Your task to perform on an android device: Go to internet settings Image 0: 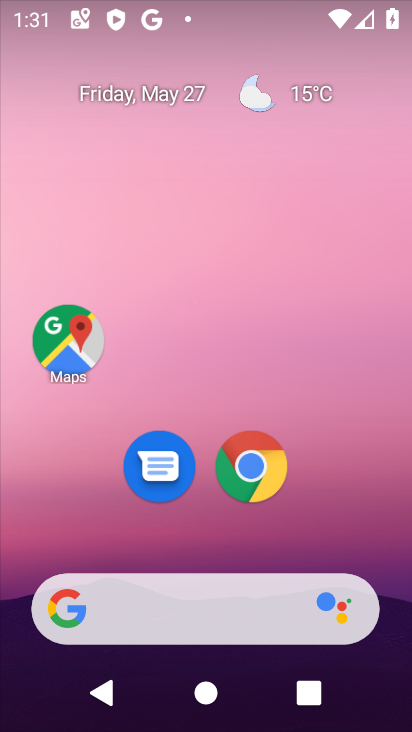
Step 0: drag from (104, 466) to (251, 41)
Your task to perform on an android device: Go to internet settings Image 1: 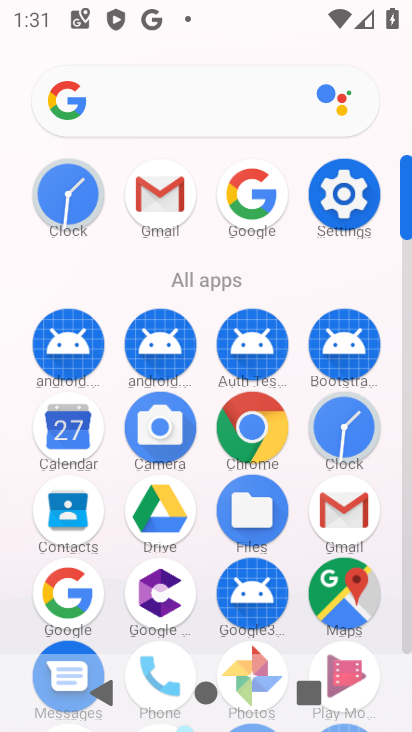
Step 1: drag from (154, 549) to (252, 255)
Your task to perform on an android device: Go to internet settings Image 2: 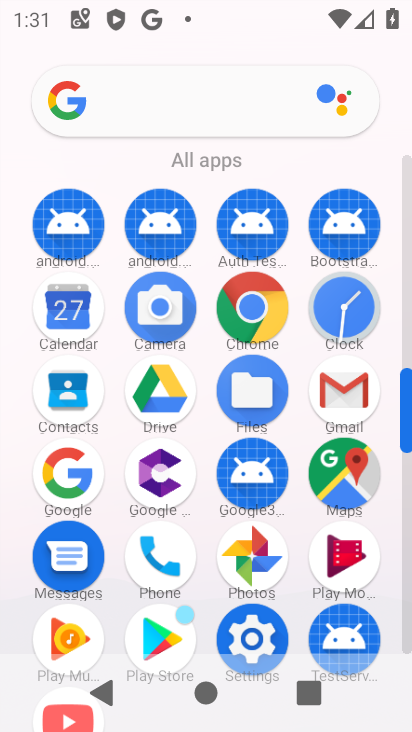
Step 2: click (255, 644)
Your task to perform on an android device: Go to internet settings Image 3: 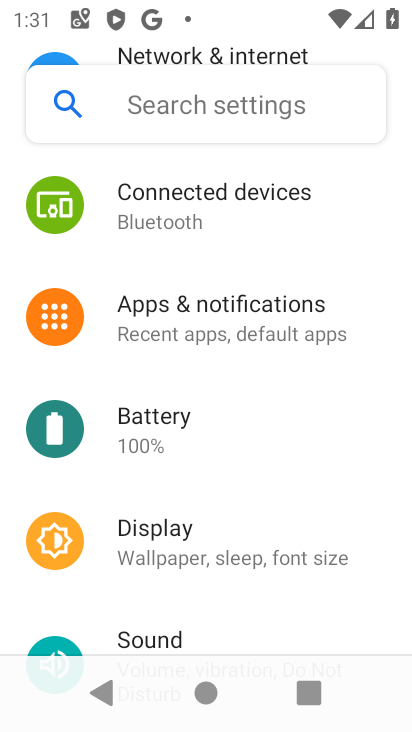
Step 3: drag from (199, 224) to (202, 638)
Your task to perform on an android device: Go to internet settings Image 4: 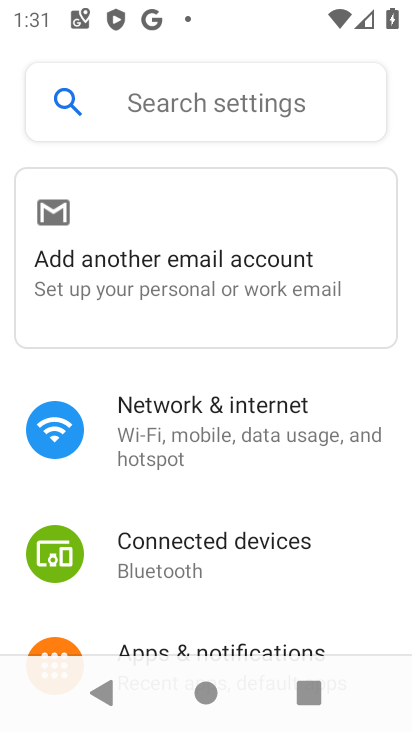
Step 4: click (245, 425)
Your task to perform on an android device: Go to internet settings Image 5: 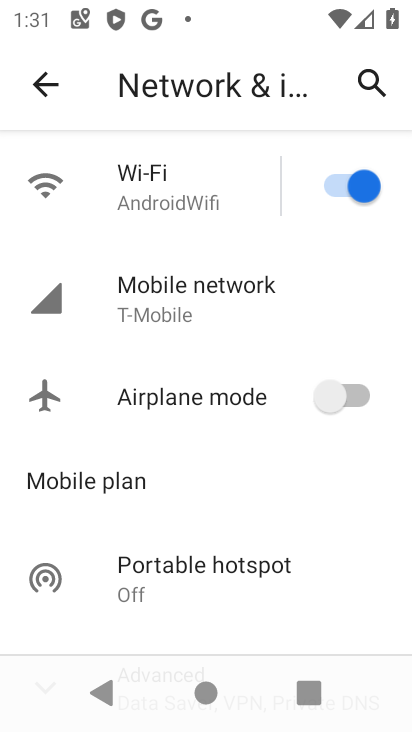
Step 5: click (244, 324)
Your task to perform on an android device: Go to internet settings Image 6: 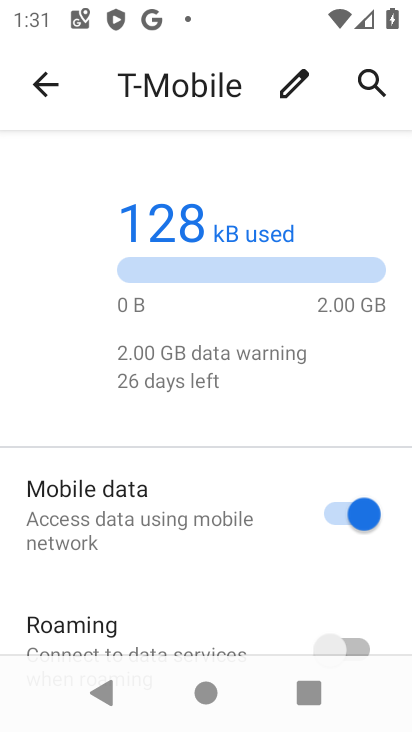
Step 6: task complete